Your task to perform on an android device: Go to privacy settings Image 0: 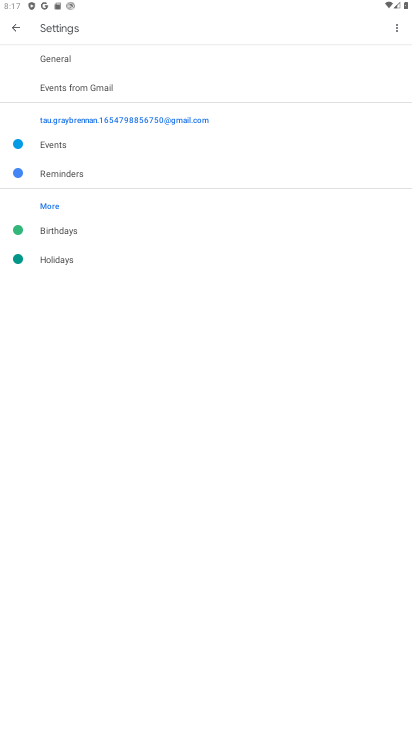
Step 0: press home button
Your task to perform on an android device: Go to privacy settings Image 1: 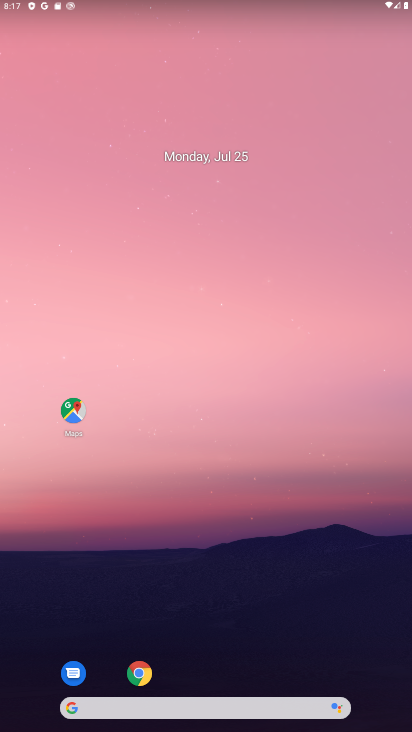
Step 1: drag from (245, 673) to (278, 94)
Your task to perform on an android device: Go to privacy settings Image 2: 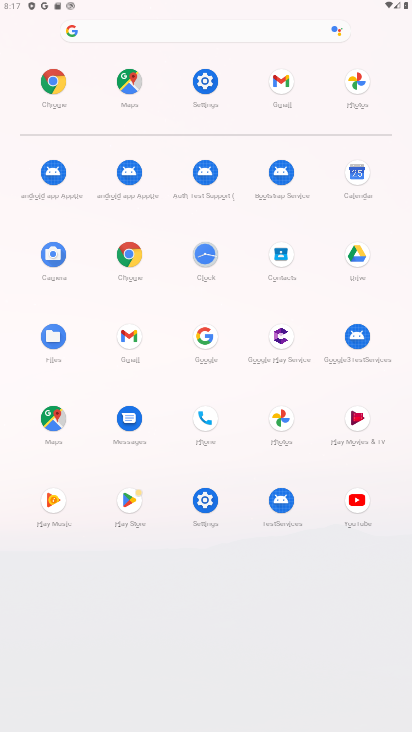
Step 2: click (209, 92)
Your task to perform on an android device: Go to privacy settings Image 3: 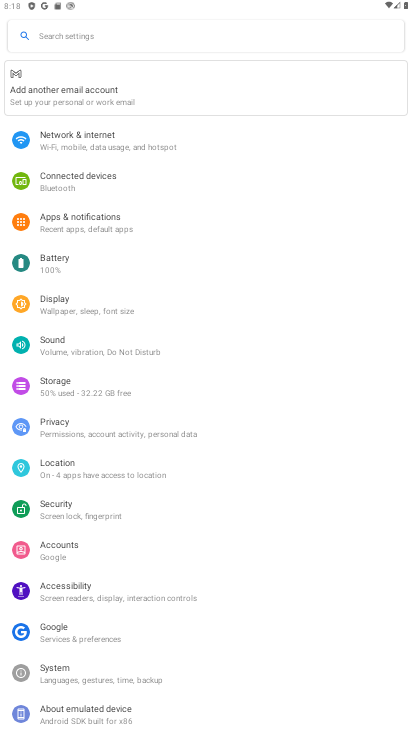
Step 3: click (122, 427)
Your task to perform on an android device: Go to privacy settings Image 4: 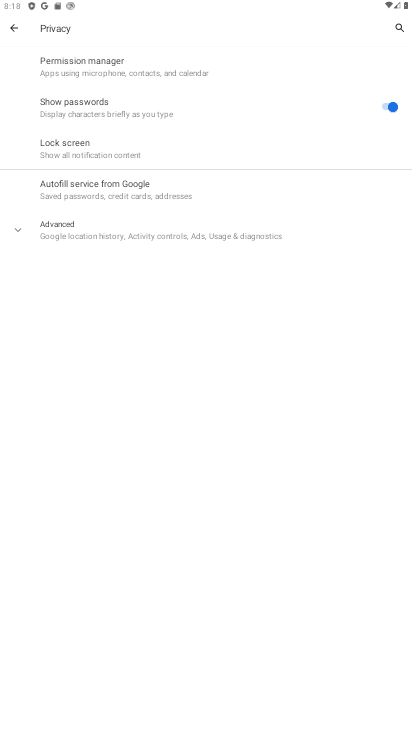
Step 4: task complete